Your task to perform on an android device: Open Chrome and go to settings Image 0: 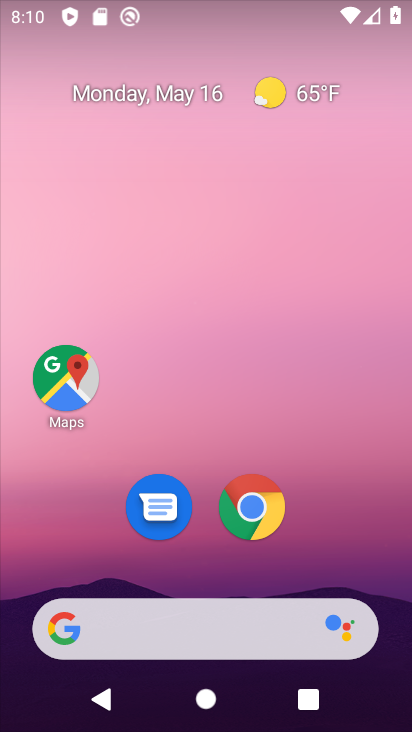
Step 0: click (248, 498)
Your task to perform on an android device: Open Chrome and go to settings Image 1: 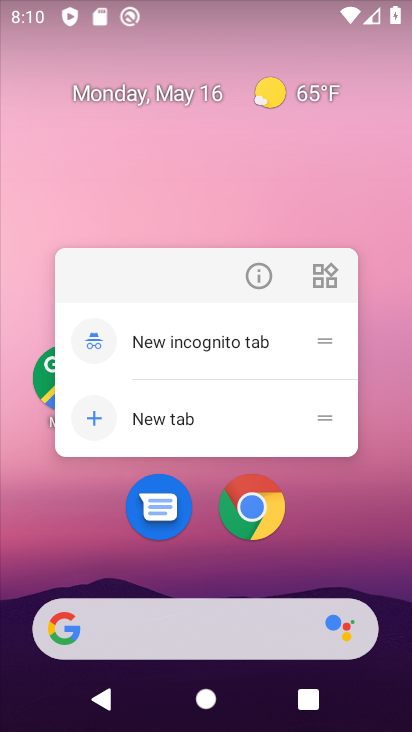
Step 1: click (260, 527)
Your task to perform on an android device: Open Chrome and go to settings Image 2: 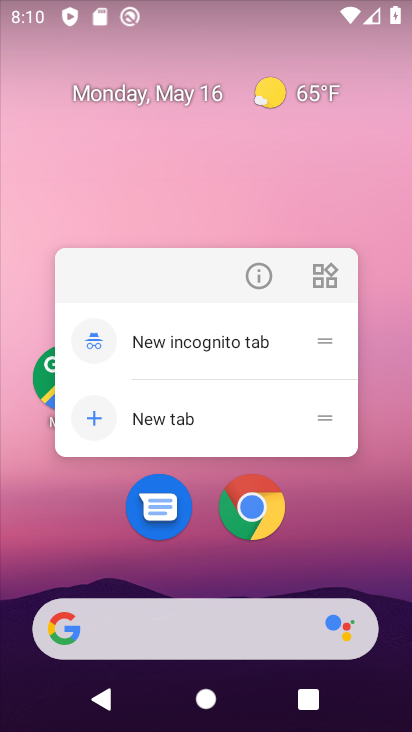
Step 2: click (253, 530)
Your task to perform on an android device: Open Chrome and go to settings Image 3: 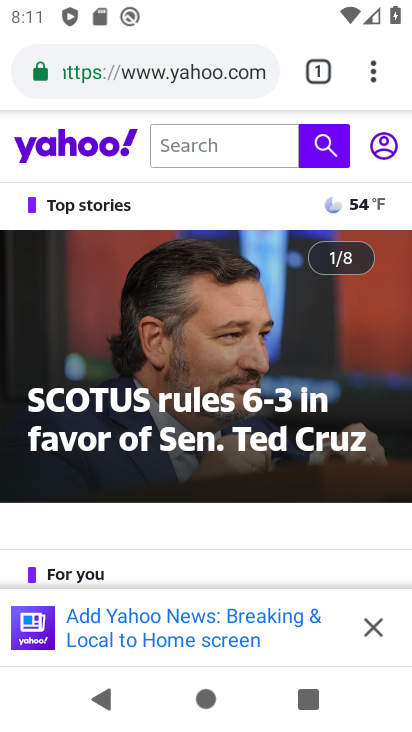
Step 3: click (372, 88)
Your task to perform on an android device: Open Chrome and go to settings Image 4: 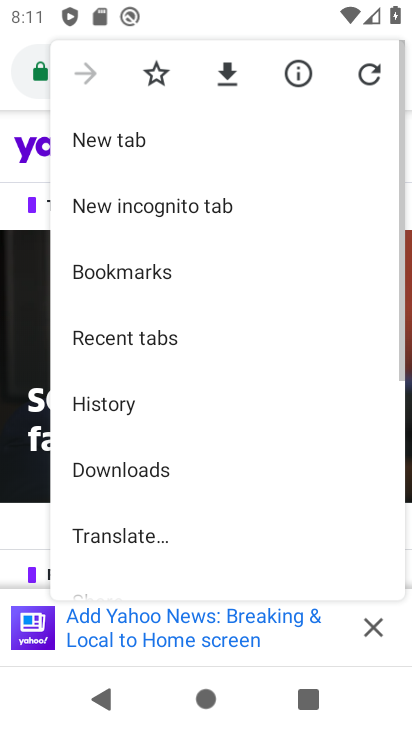
Step 4: drag from (123, 492) to (108, 94)
Your task to perform on an android device: Open Chrome and go to settings Image 5: 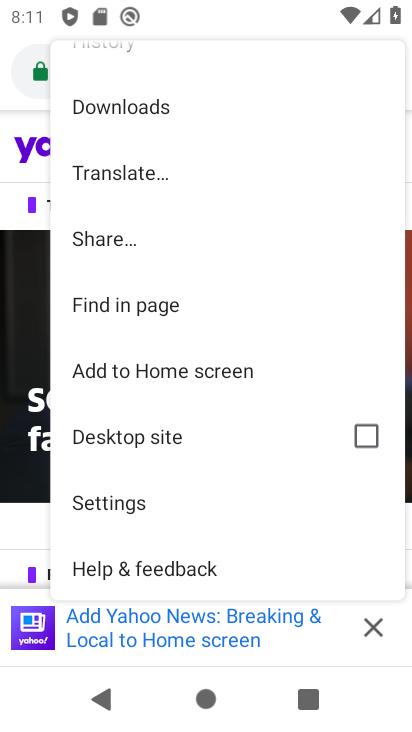
Step 5: click (107, 483)
Your task to perform on an android device: Open Chrome and go to settings Image 6: 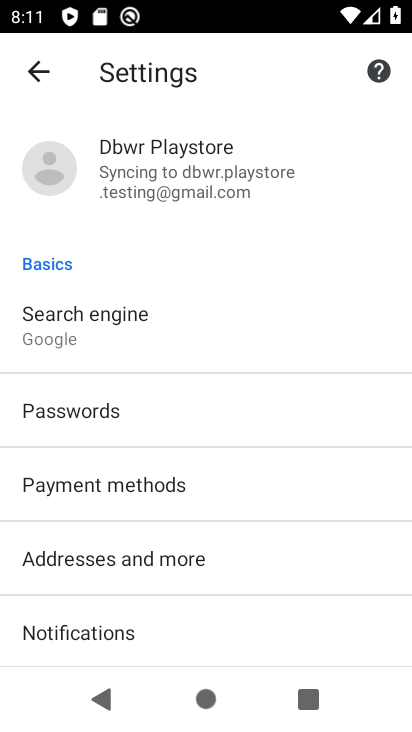
Step 6: task complete